Your task to perform on an android device: What's on my calendar tomorrow? Image 0: 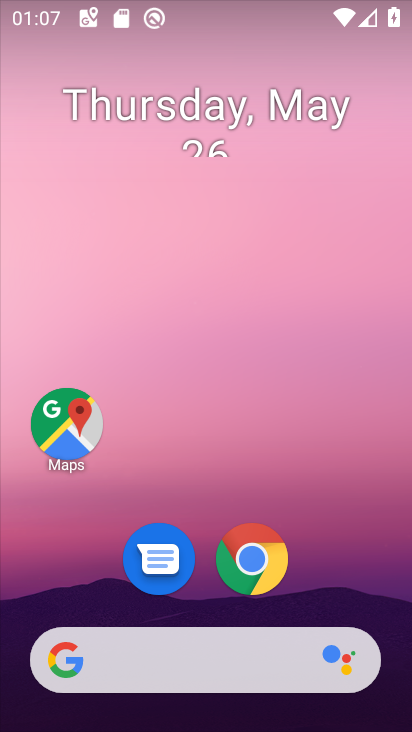
Step 0: drag from (366, 487) to (316, 70)
Your task to perform on an android device: What's on my calendar tomorrow? Image 1: 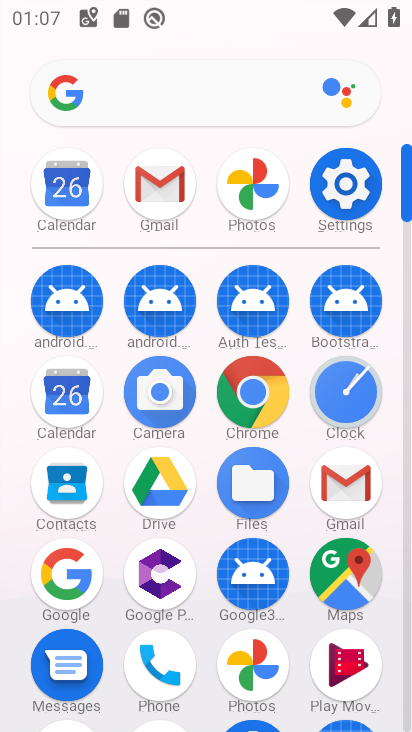
Step 1: click (58, 393)
Your task to perform on an android device: What's on my calendar tomorrow? Image 2: 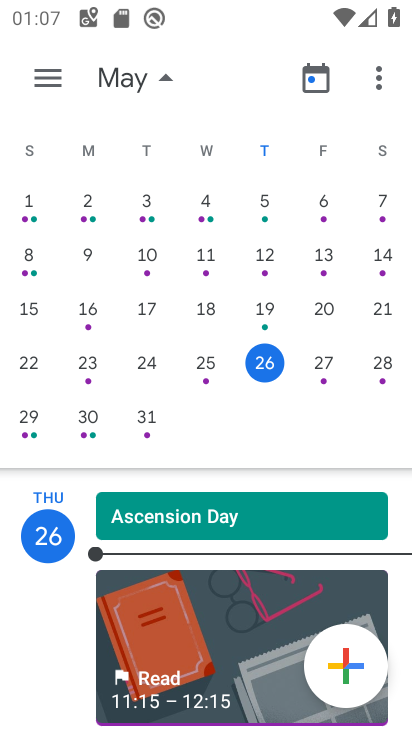
Step 2: click (40, 72)
Your task to perform on an android device: What's on my calendar tomorrow? Image 3: 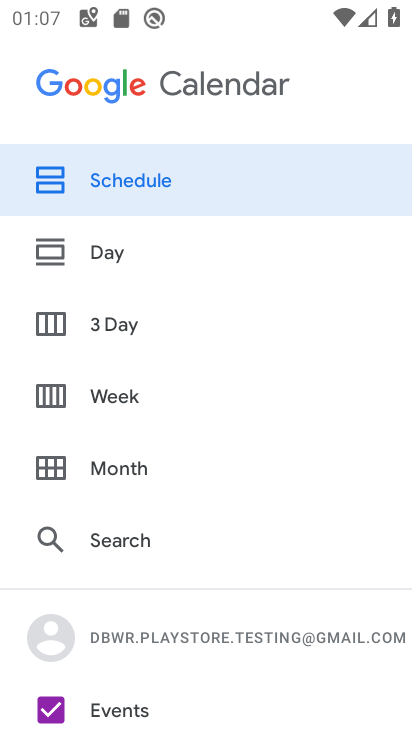
Step 3: click (166, 182)
Your task to perform on an android device: What's on my calendar tomorrow? Image 4: 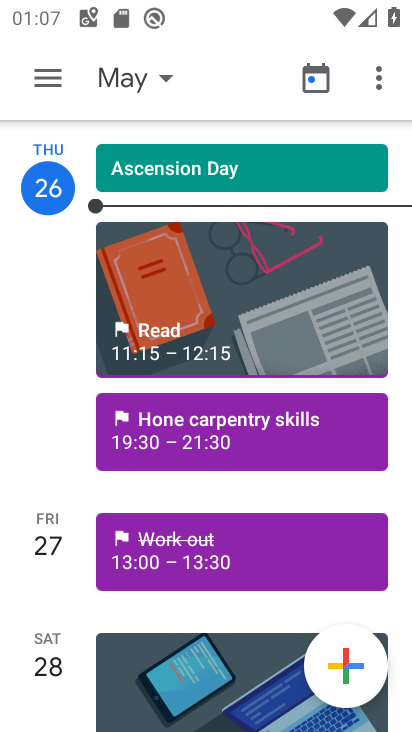
Step 4: task complete